Your task to perform on an android device: View the shopping cart on target.com. Search for "logitech g pro" on target.com, select the first entry, and add it to the cart. Image 0: 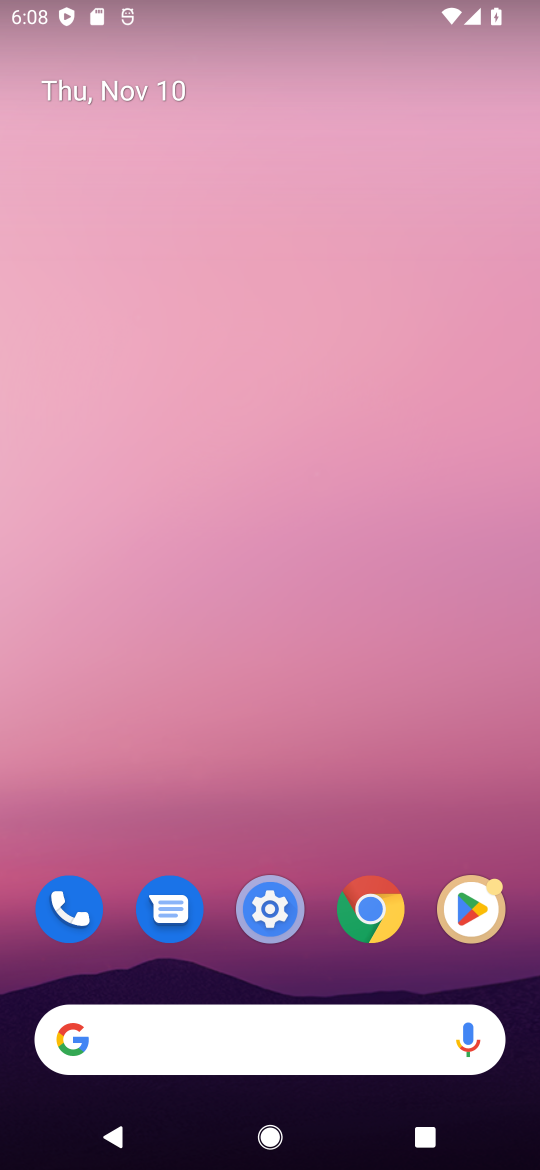
Step 0: drag from (265, 1069) to (254, 125)
Your task to perform on an android device: View the shopping cart on target.com. Search for "logitech g pro" on target.com, select the first entry, and add it to the cart. Image 1: 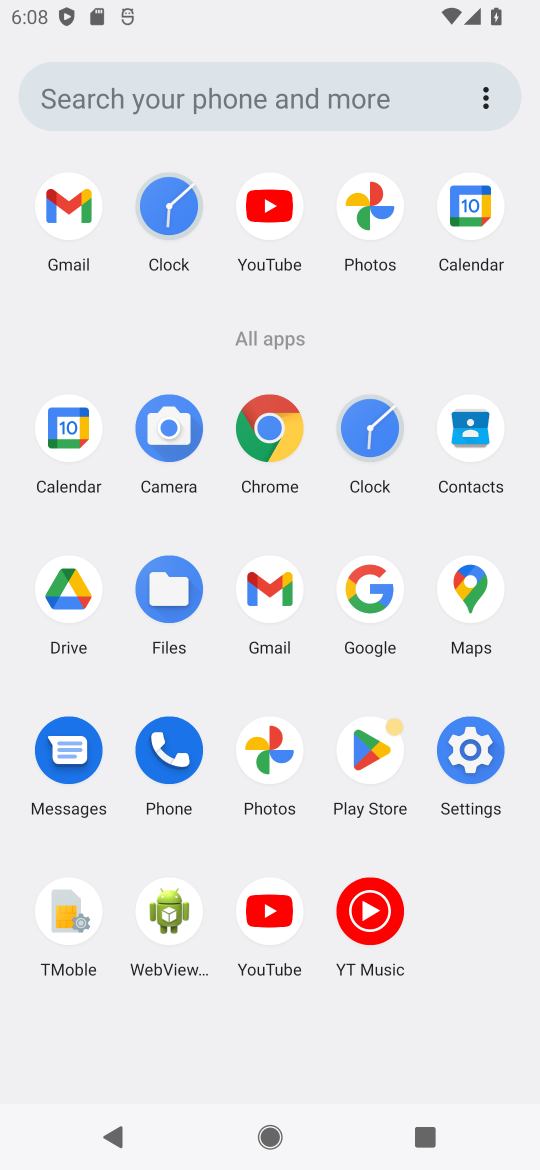
Step 1: click (377, 586)
Your task to perform on an android device: View the shopping cart on target.com. Search for "logitech g pro" on target.com, select the first entry, and add it to the cart. Image 2: 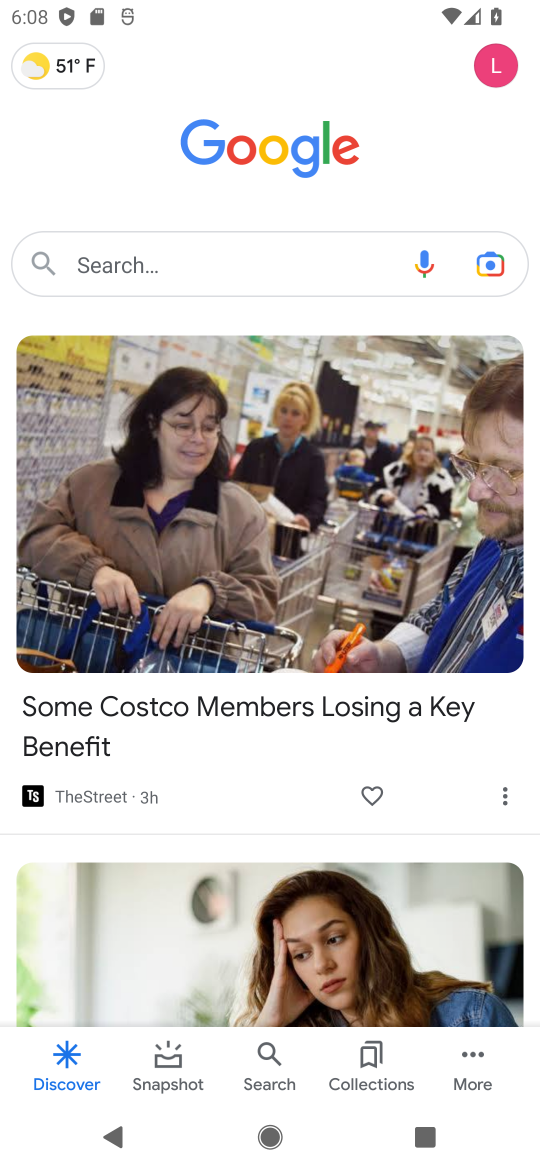
Step 2: click (200, 245)
Your task to perform on an android device: View the shopping cart on target.com. Search for "logitech g pro" on target.com, select the first entry, and add it to the cart. Image 3: 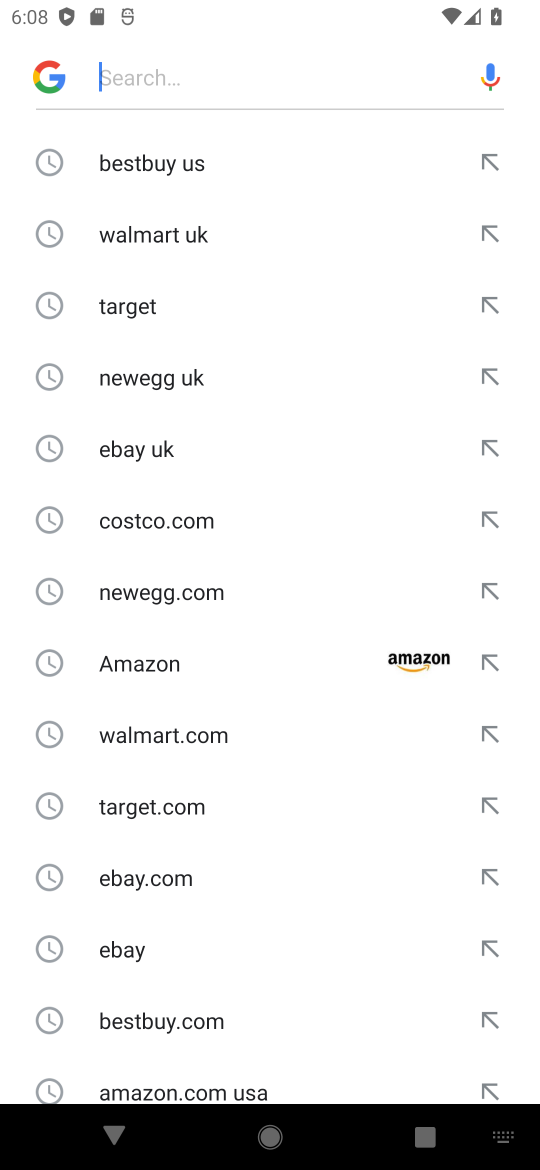
Step 3: type " target.com "
Your task to perform on an android device: View the shopping cart on target.com. Search for "logitech g pro" on target.com, select the first entry, and add it to the cart. Image 4: 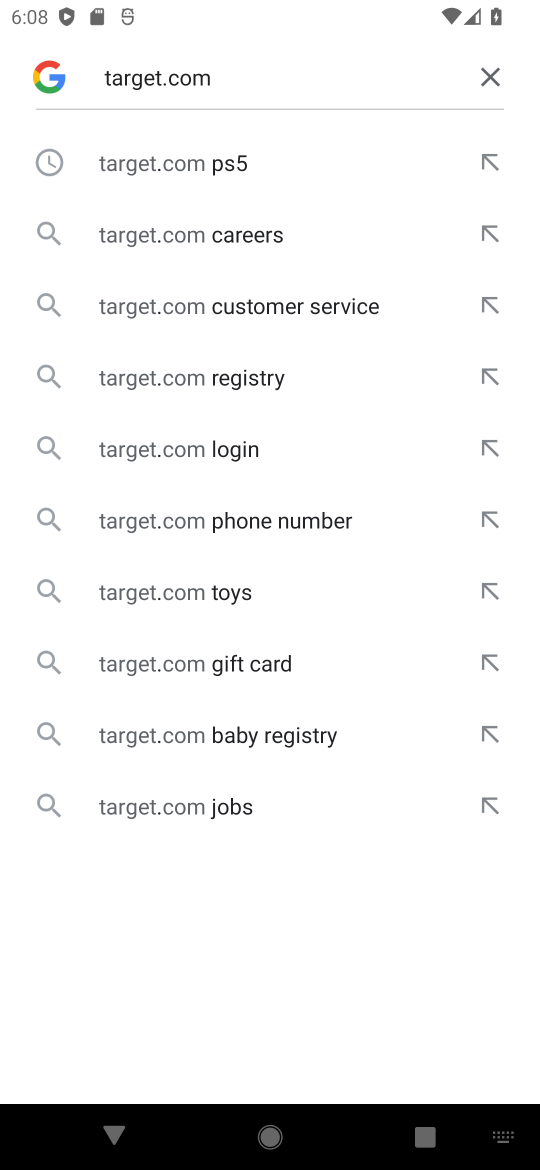
Step 4: click (216, 166)
Your task to perform on an android device: View the shopping cart on target.com. Search for "logitech g pro" on target.com, select the first entry, and add it to the cart. Image 5: 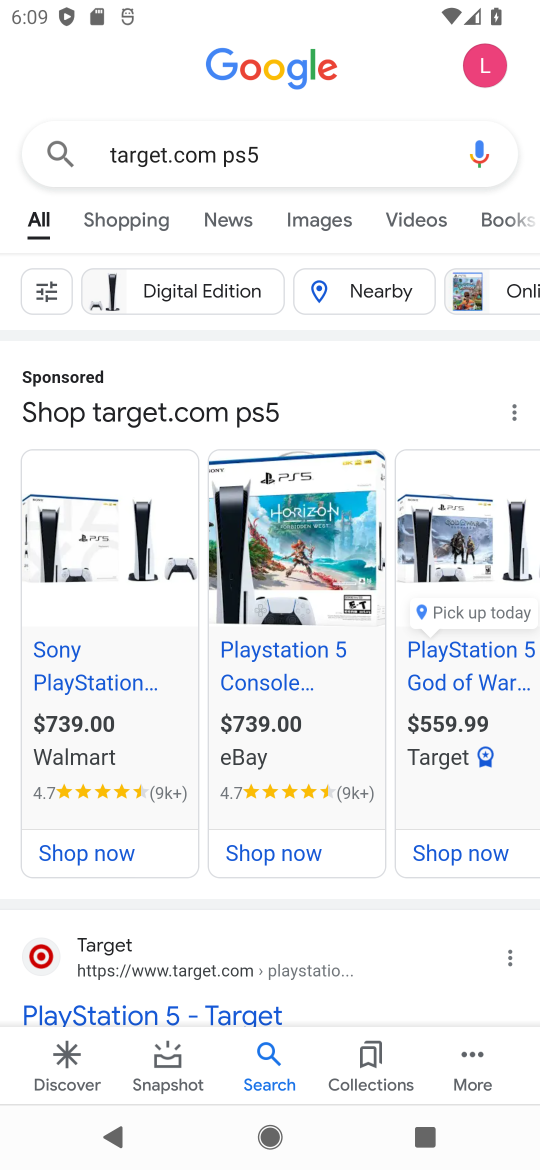
Step 5: drag from (296, 910) to (275, 361)
Your task to perform on an android device: View the shopping cart on target.com. Search for "logitech g pro" on target.com, select the first entry, and add it to the cart. Image 6: 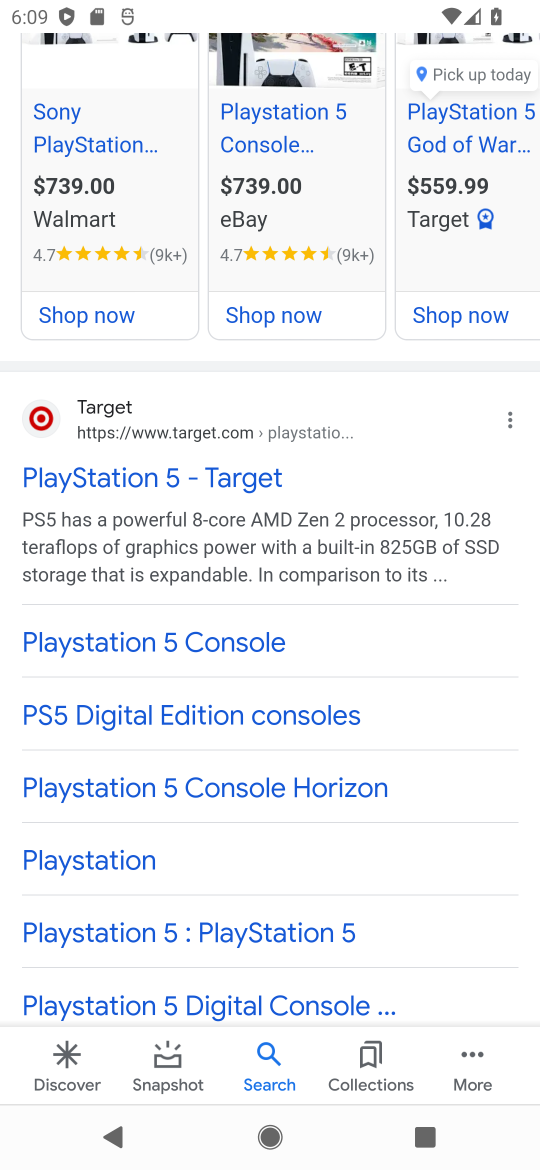
Step 6: click (40, 406)
Your task to perform on an android device: View the shopping cart on target.com. Search for "logitech g pro" on target.com, select the first entry, and add it to the cart. Image 7: 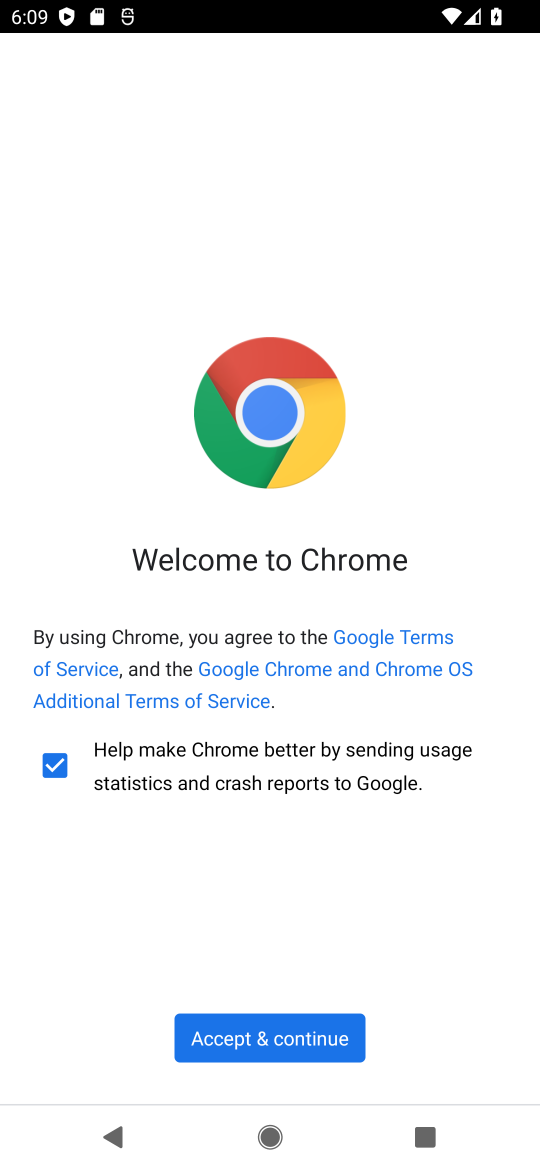
Step 7: click (287, 1025)
Your task to perform on an android device: View the shopping cart on target.com. Search for "logitech g pro" on target.com, select the first entry, and add it to the cart. Image 8: 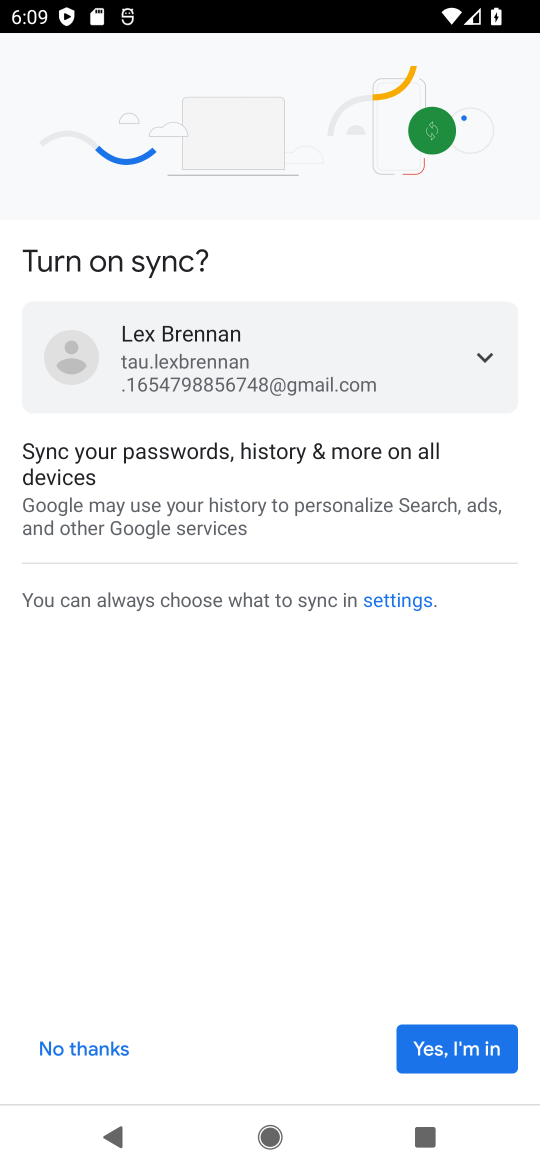
Step 8: click (440, 1050)
Your task to perform on an android device: View the shopping cart on target.com. Search for "logitech g pro" on target.com, select the first entry, and add it to the cart. Image 9: 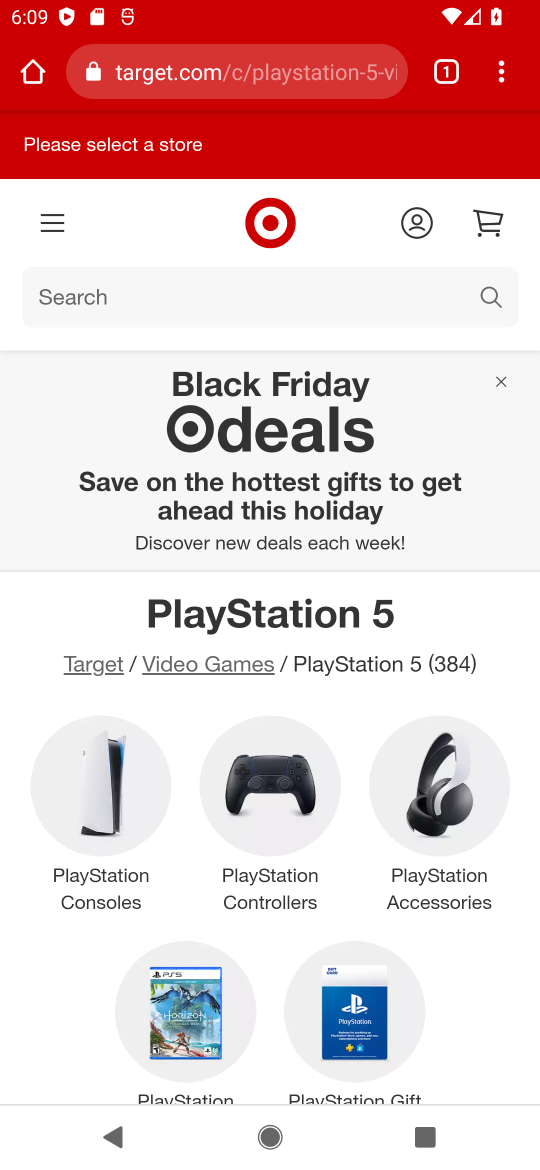
Step 9: click (238, 297)
Your task to perform on an android device: View the shopping cart on target.com. Search for "logitech g pro" on target.com, select the first entry, and add it to the cart. Image 10: 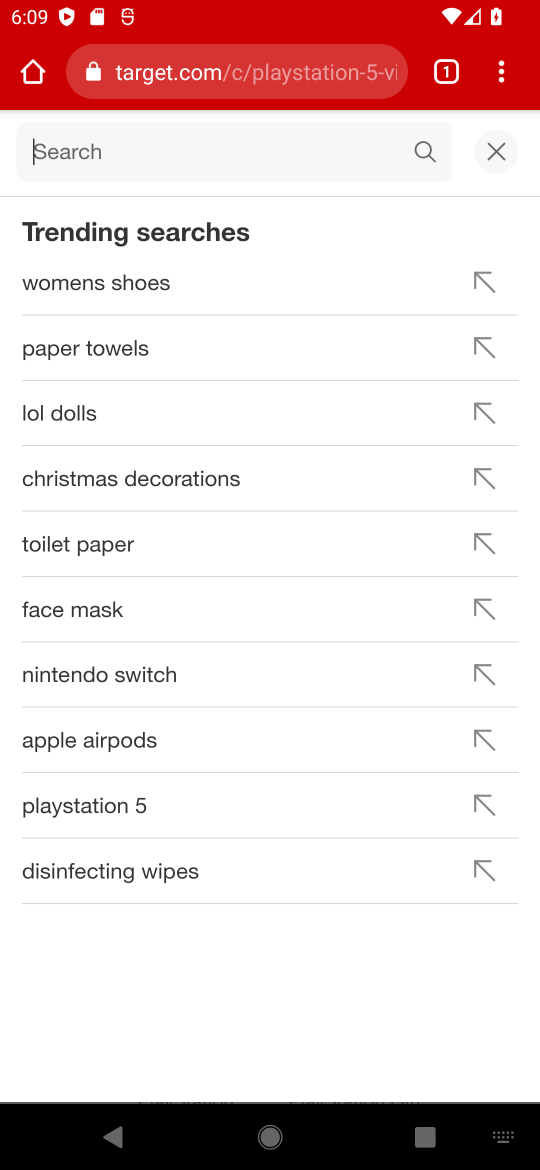
Step 10: type "logitech g pro "
Your task to perform on an android device: View the shopping cart on target.com. Search for "logitech g pro" on target.com, select the first entry, and add it to the cart. Image 11: 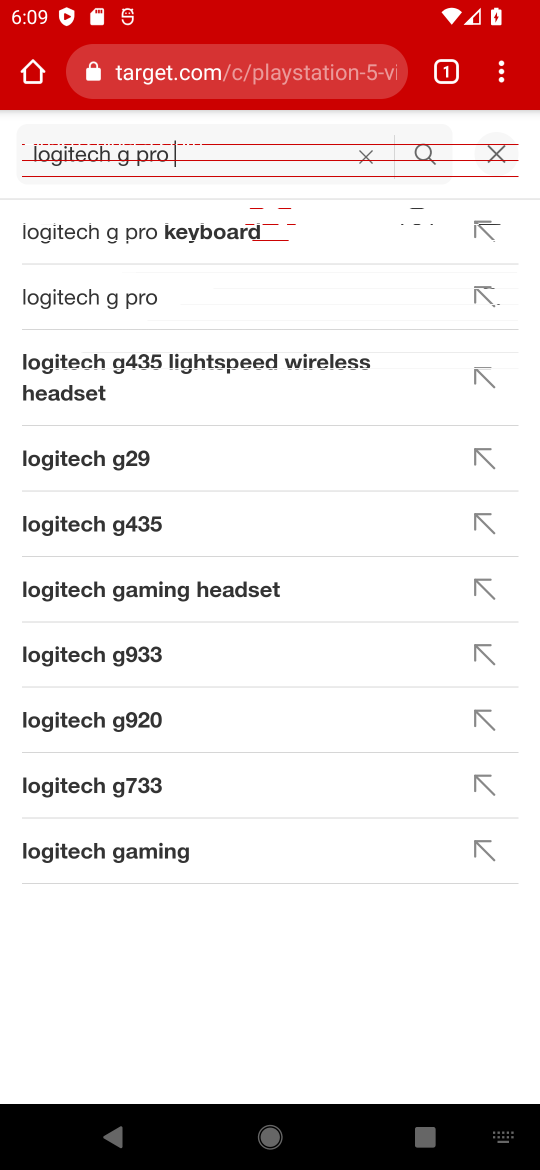
Step 11: click (166, 299)
Your task to perform on an android device: View the shopping cart on target.com. Search for "logitech g pro" on target.com, select the first entry, and add it to the cart. Image 12: 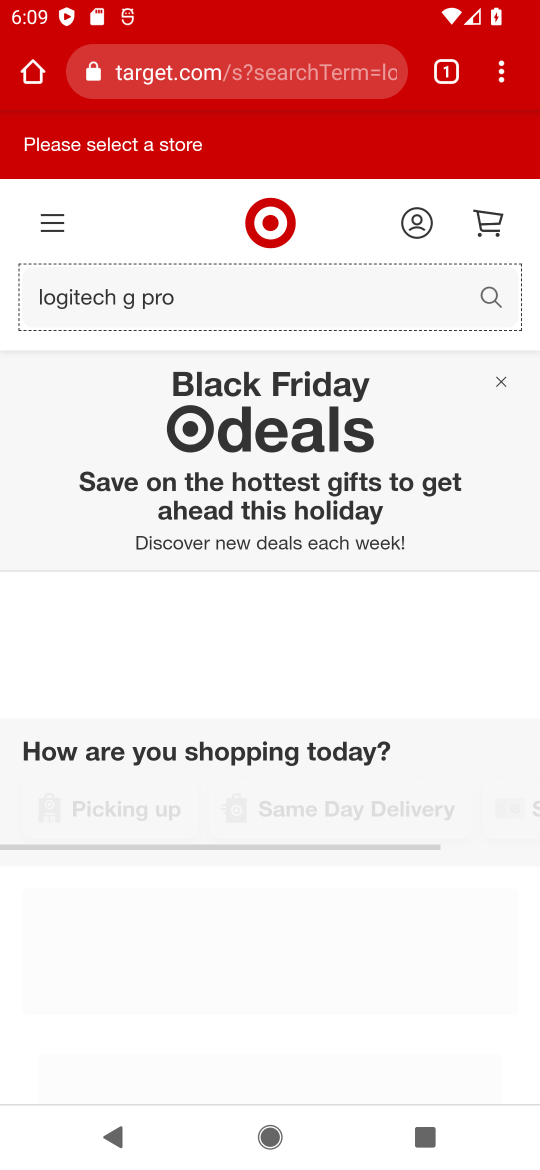
Step 12: click (166, 299)
Your task to perform on an android device: View the shopping cart on target.com. Search for "logitech g pro" on target.com, select the first entry, and add it to the cart. Image 13: 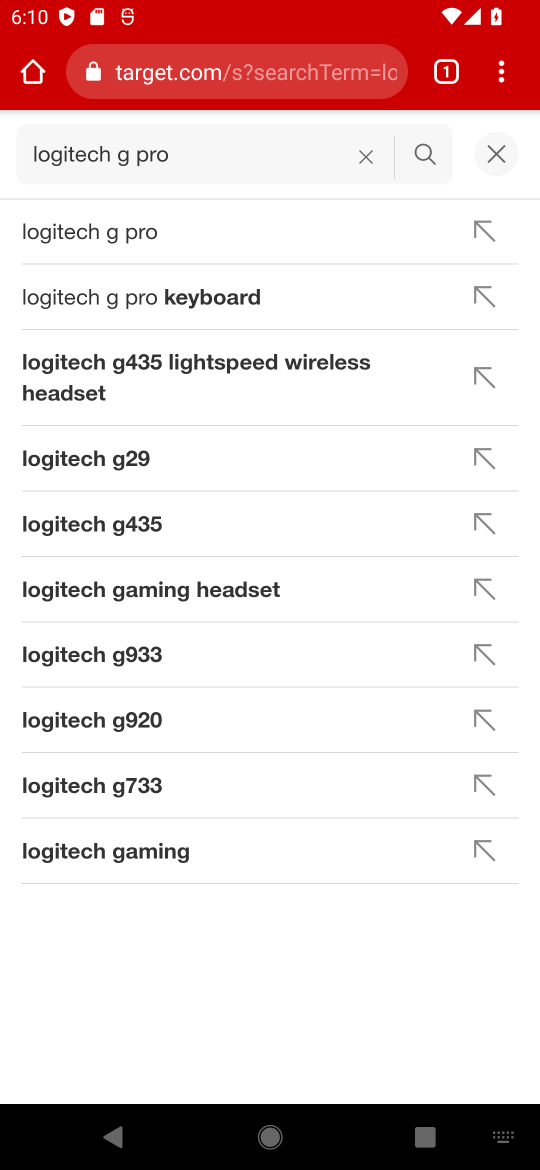
Step 13: click (132, 233)
Your task to perform on an android device: View the shopping cart on target.com. Search for "logitech g pro" on target.com, select the first entry, and add it to the cart. Image 14: 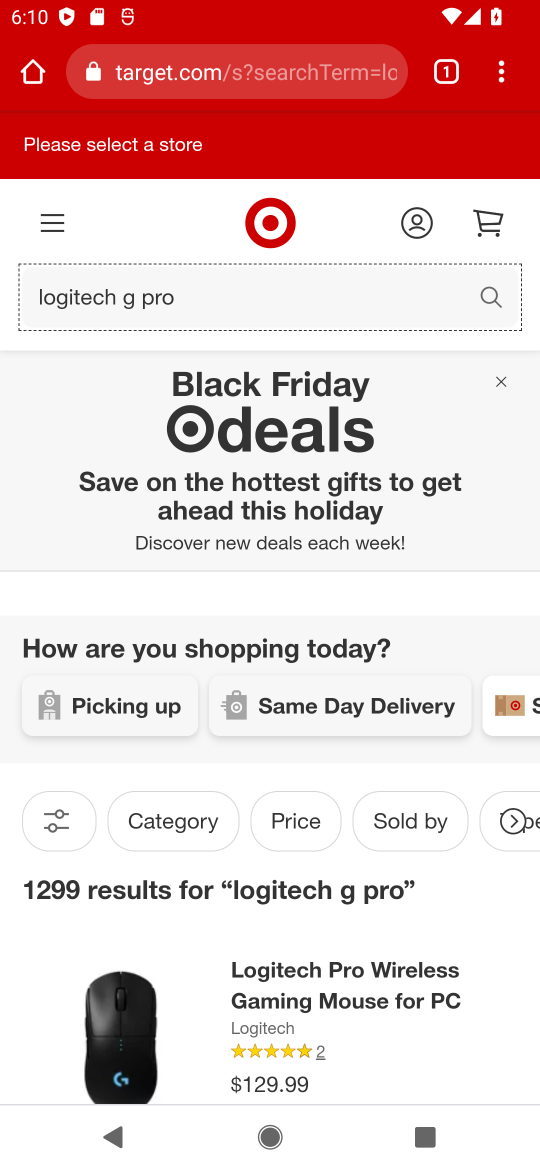
Step 14: drag from (413, 1051) to (393, 684)
Your task to perform on an android device: View the shopping cart on target.com. Search for "logitech g pro" on target.com, select the first entry, and add it to the cart. Image 15: 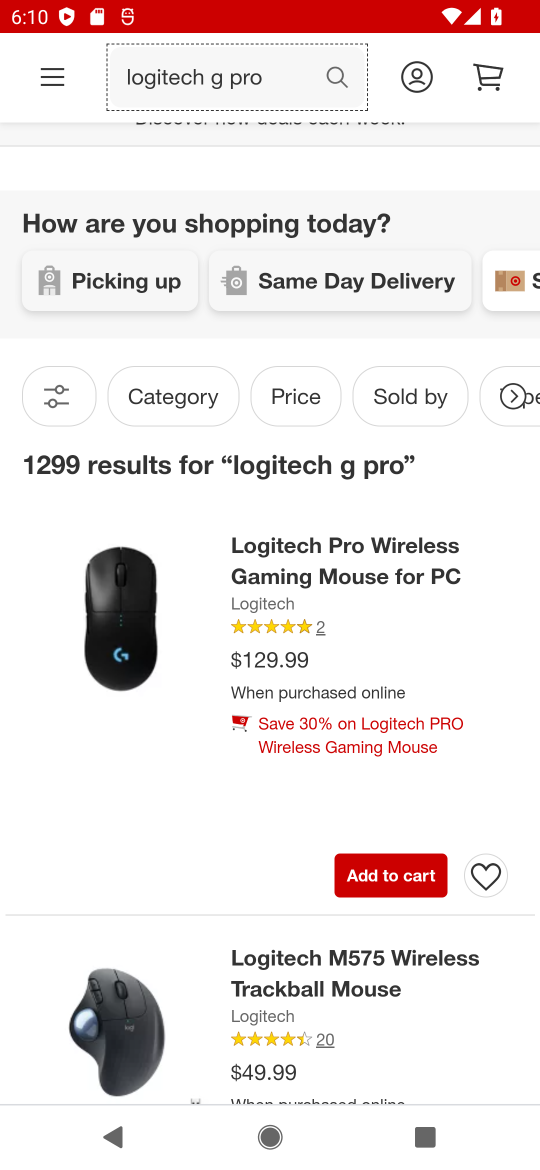
Step 15: click (390, 870)
Your task to perform on an android device: View the shopping cart on target.com. Search for "logitech g pro" on target.com, select the first entry, and add it to the cart. Image 16: 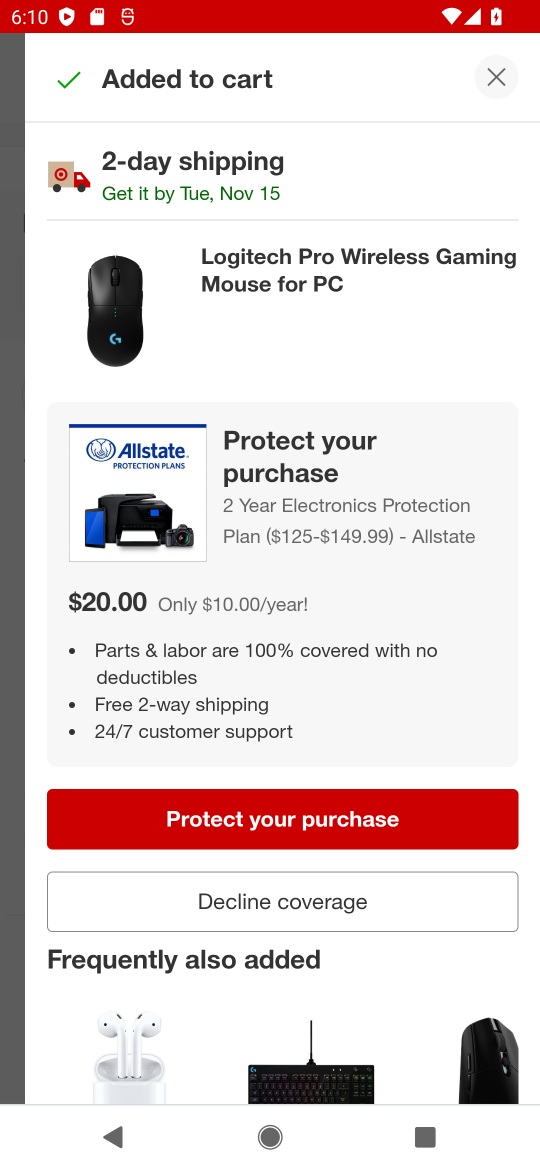
Step 16: task complete